Your task to perform on an android device: Open the Play Movies app and select the watchlist tab. Image 0: 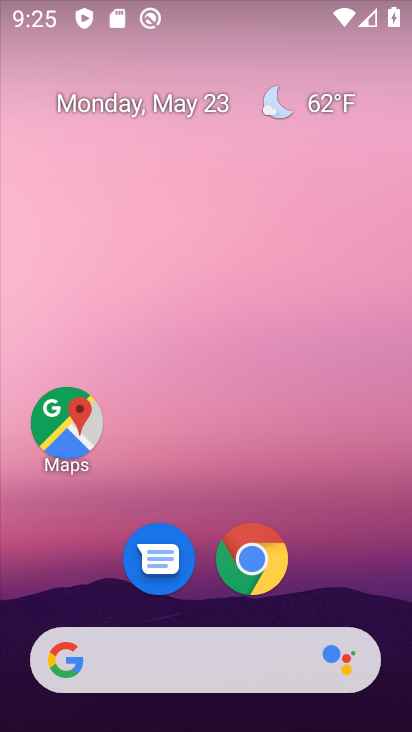
Step 0: drag from (75, 616) to (212, 21)
Your task to perform on an android device: Open the Play Movies app and select the watchlist tab. Image 1: 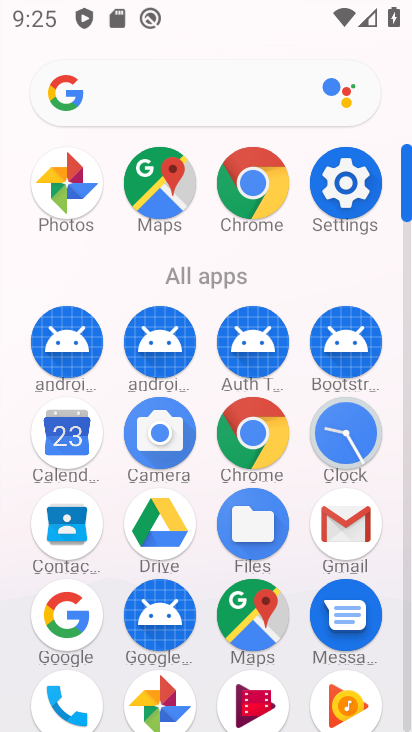
Step 1: drag from (160, 632) to (202, 370)
Your task to perform on an android device: Open the Play Movies app and select the watchlist tab. Image 2: 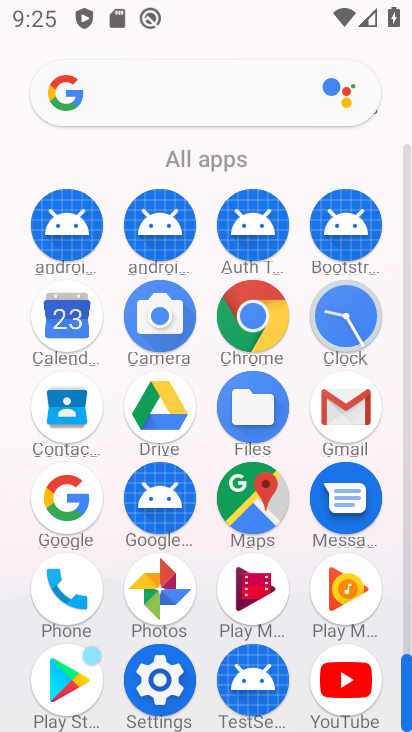
Step 2: click (270, 581)
Your task to perform on an android device: Open the Play Movies app and select the watchlist tab. Image 3: 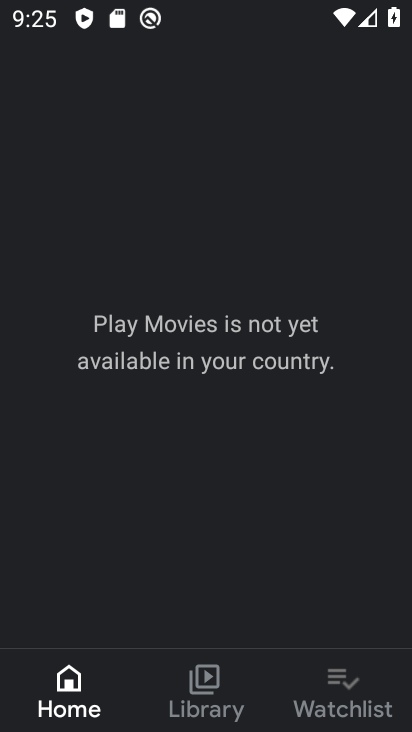
Step 3: click (341, 689)
Your task to perform on an android device: Open the Play Movies app and select the watchlist tab. Image 4: 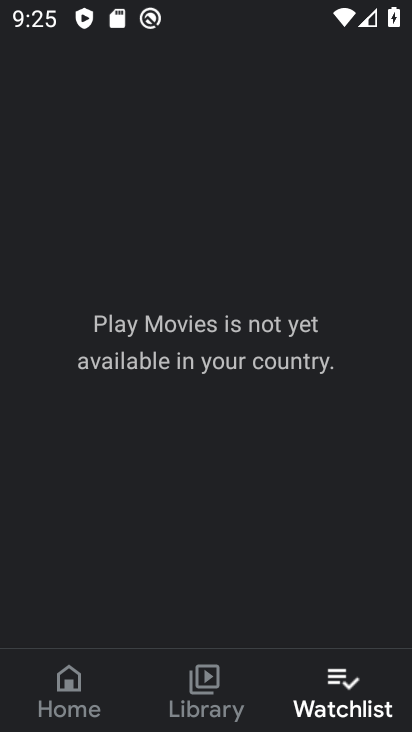
Step 4: task complete